Your task to perform on an android device: Open the calendar app, open the side menu, and click the "Day" option Image 0: 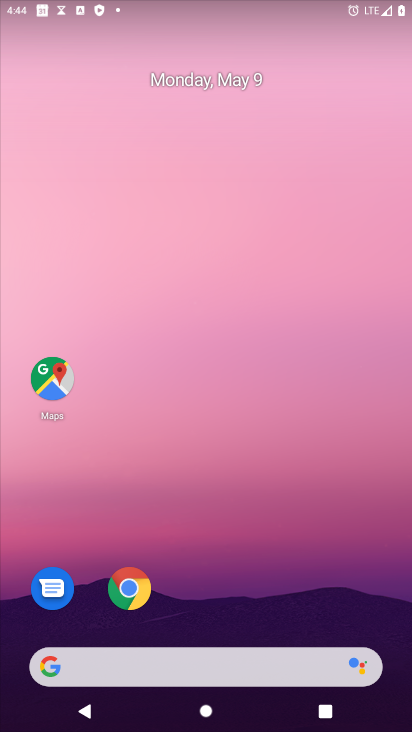
Step 0: drag from (265, 442) to (219, 60)
Your task to perform on an android device: Open the calendar app, open the side menu, and click the "Day" option Image 1: 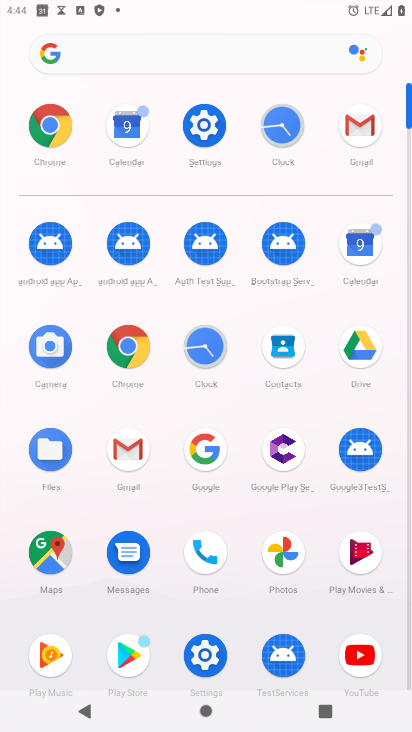
Step 1: click (361, 258)
Your task to perform on an android device: Open the calendar app, open the side menu, and click the "Day" option Image 2: 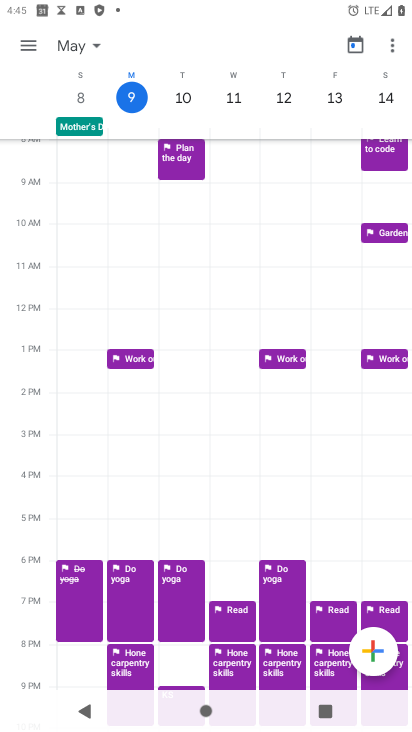
Step 2: click (23, 37)
Your task to perform on an android device: Open the calendar app, open the side menu, and click the "Day" option Image 3: 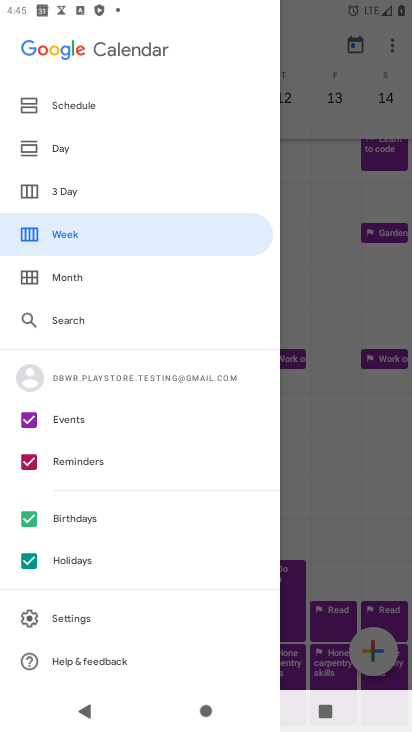
Step 3: click (79, 145)
Your task to perform on an android device: Open the calendar app, open the side menu, and click the "Day" option Image 4: 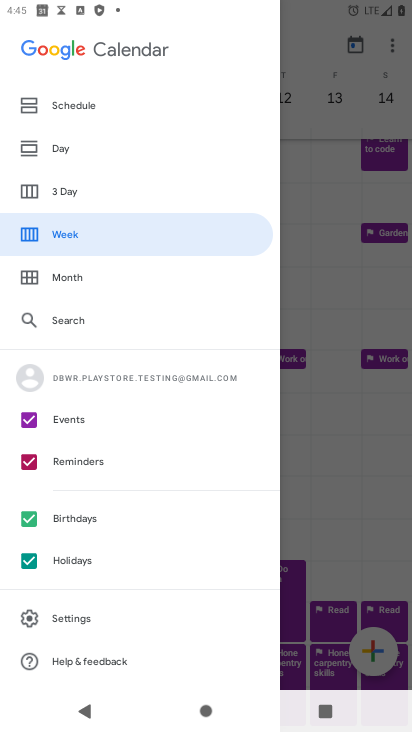
Step 4: click (88, 141)
Your task to perform on an android device: Open the calendar app, open the side menu, and click the "Day" option Image 5: 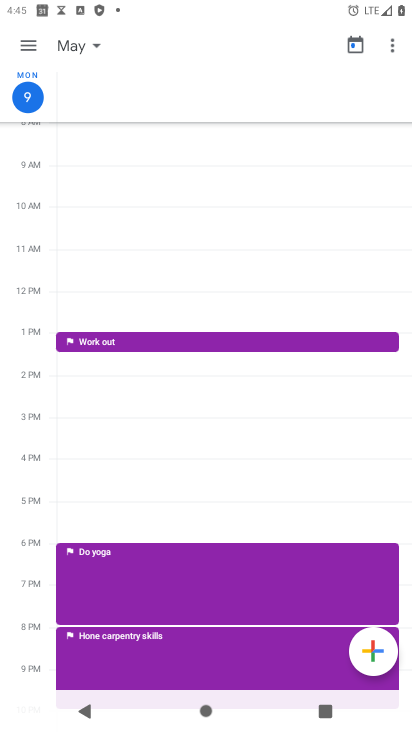
Step 5: task complete